Your task to perform on an android device: open device folders in google photos Image 0: 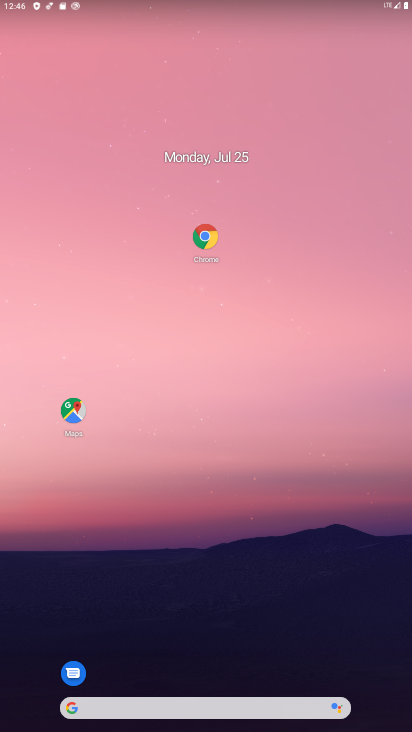
Step 0: drag from (171, 501) to (300, 14)
Your task to perform on an android device: open device folders in google photos Image 1: 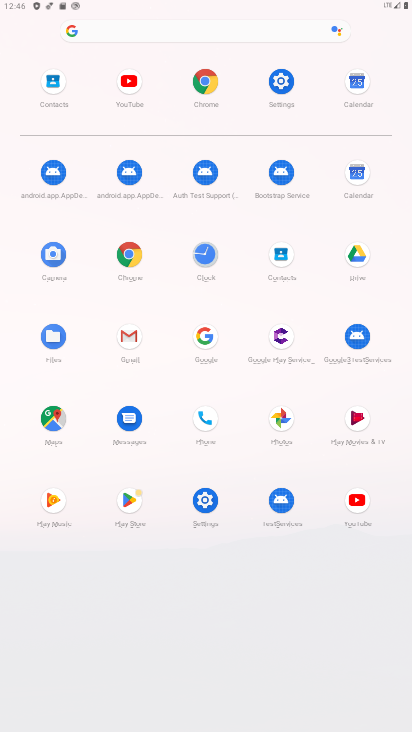
Step 1: click (283, 418)
Your task to perform on an android device: open device folders in google photos Image 2: 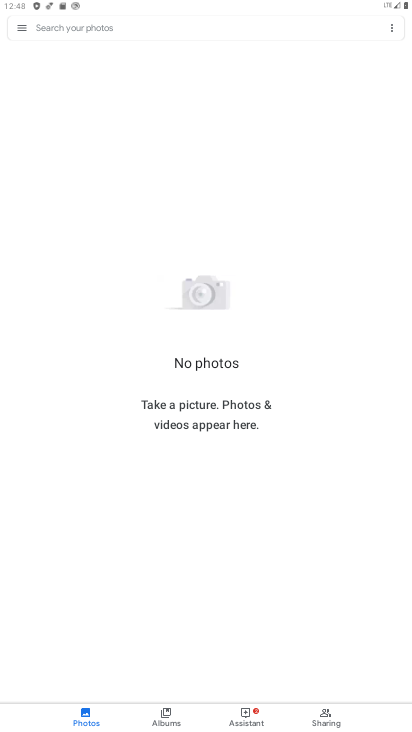
Step 2: press home button
Your task to perform on an android device: open device folders in google photos Image 3: 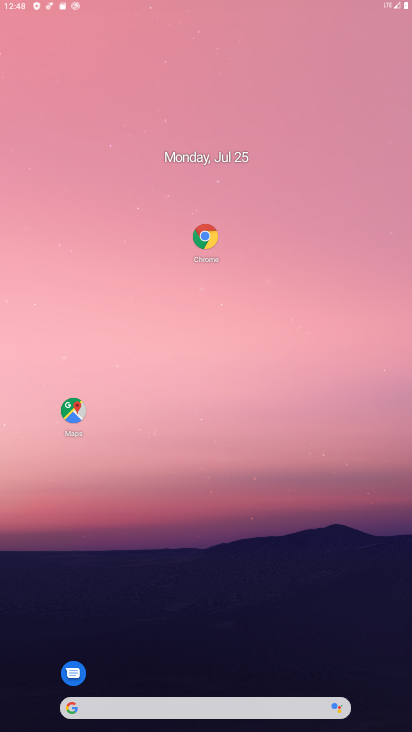
Step 3: drag from (168, 646) to (304, 51)
Your task to perform on an android device: open device folders in google photos Image 4: 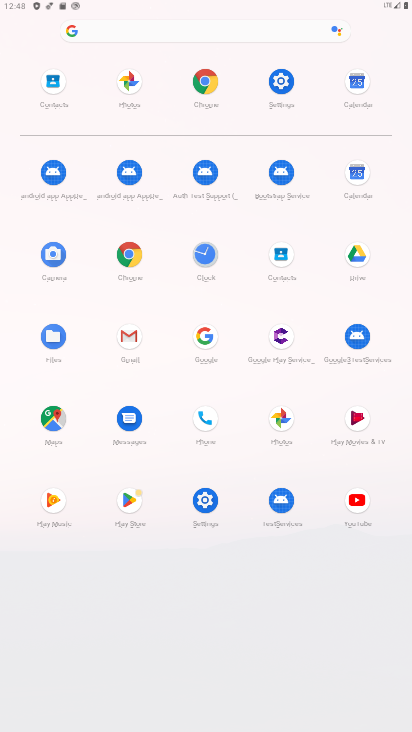
Step 4: click (294, 421)
Your task to perform on an android device: open device folders in google photos Image 5: 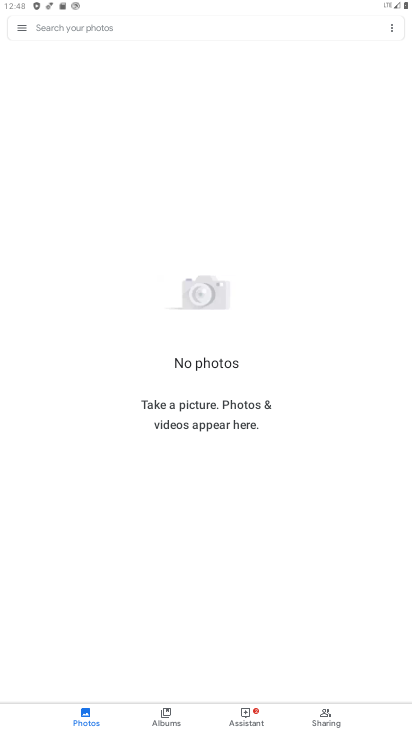
Step 5: click (36, 20)
Your task to perform on an android device: open device folders in google photos Image 6: 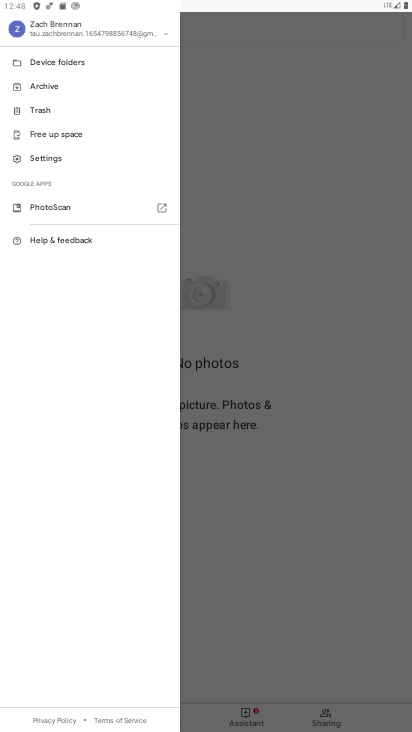
Step 6: click (32, 50)
Your task to perform on an android device: open device folders in google photos Image 7: 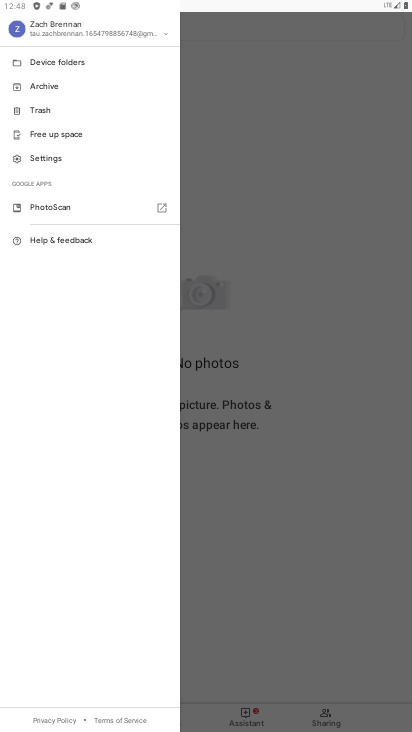
Step 7: click (86, 70)
Your task to perform on an android device: open device folders in google photos Image 8: 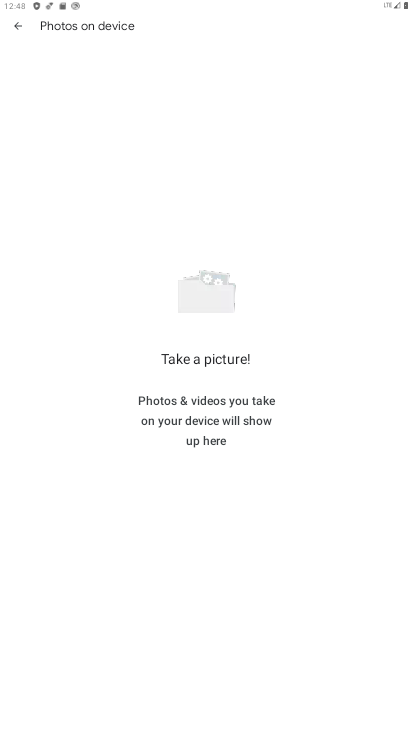
Step 8: task complete